Your task to perform on an android device: find photos in the google photos app Image 0: 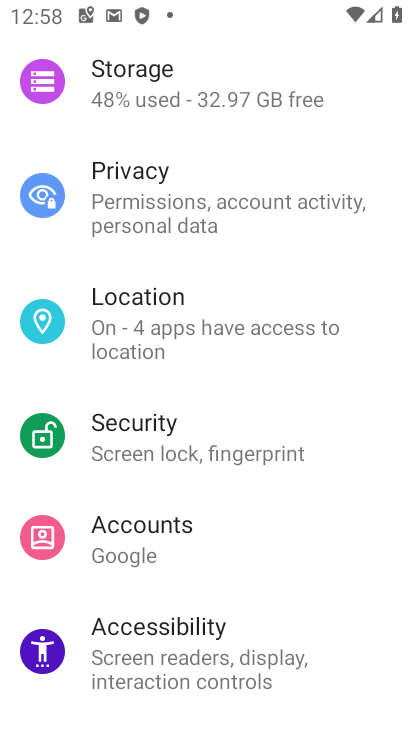
Step 0: press home button
Your task to perform on an android device: find photos in the google photos app Image 1: 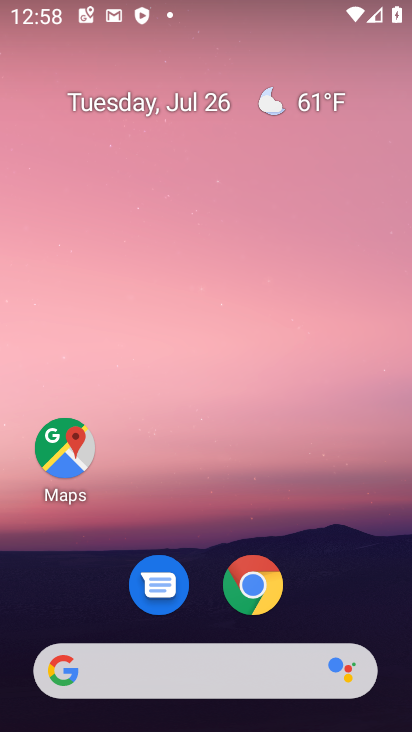
Step 1: drag from (231, 654) to (320, 234)
Your task to perform on an android device: find photos in the google photos app Image 2: 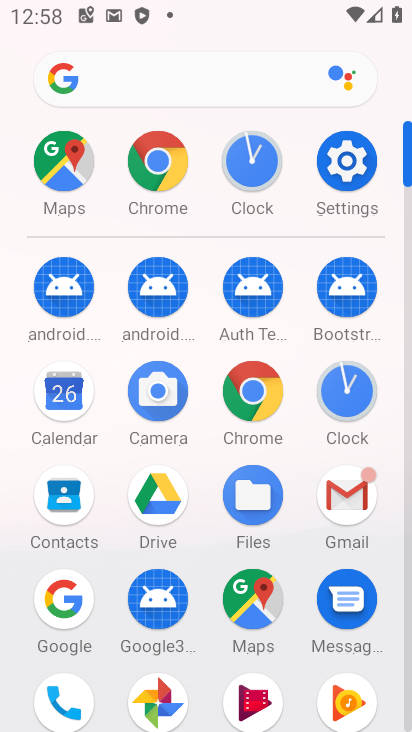
Step 2: drag from (208, 564) to (320, 190)
Your task to perform on an android device: find photos in the google photos app Image 3: 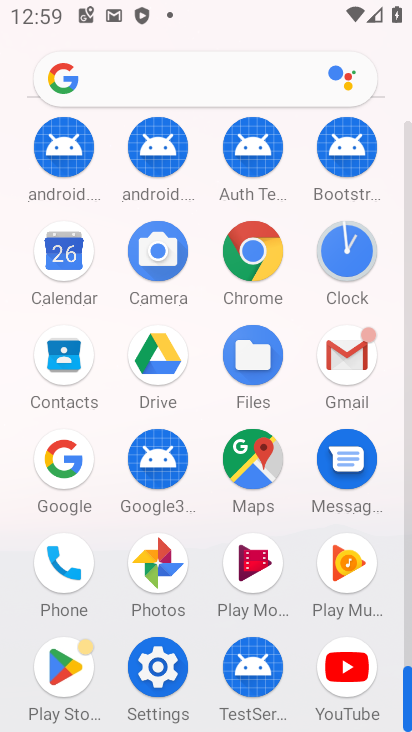
Step 3: click (156, 568)
Your task to perform on an android device: find photos in the google photos app Image 4: 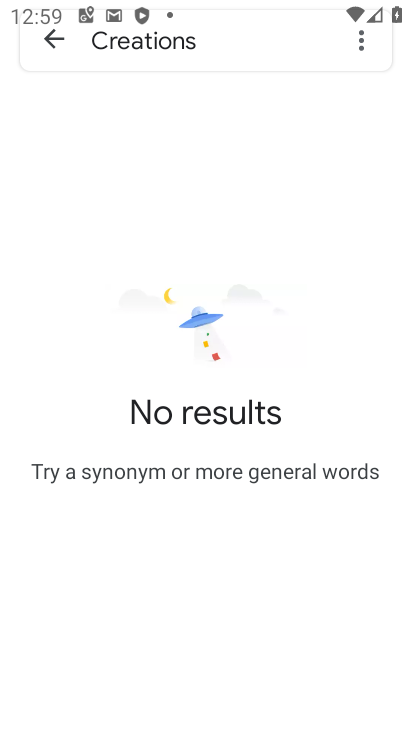
Step 4: click (56, 33)
Your task to perform on an android device: find photos in the google photos app Image 5: 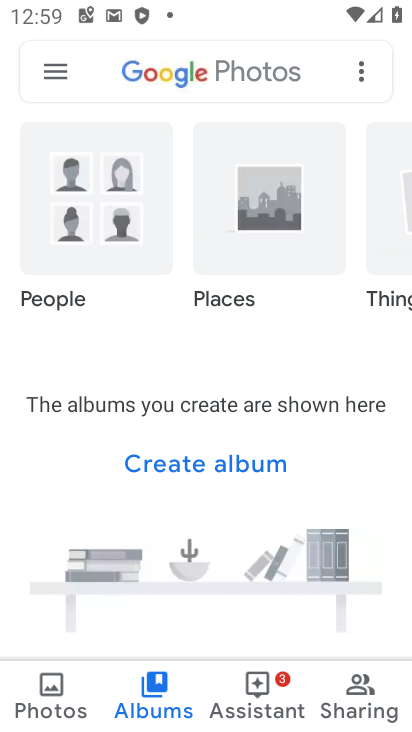
Step 5: click (52, 699)
Your task to perform on an android device: find photos in the google photos app Image 6: 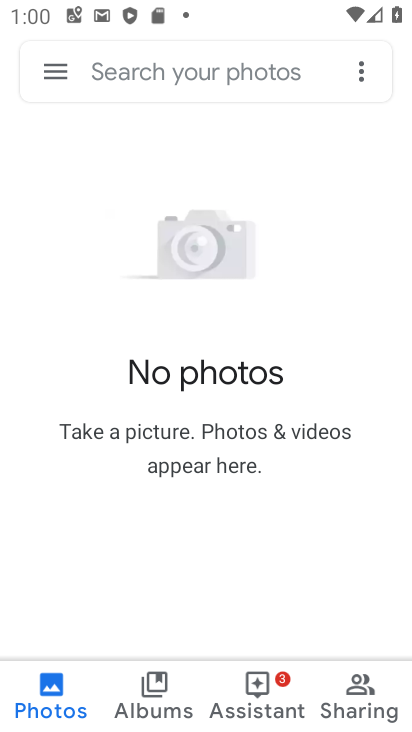
Step 6: task complete